Your task to perform on an android device: turn off sleep mode Image 0: 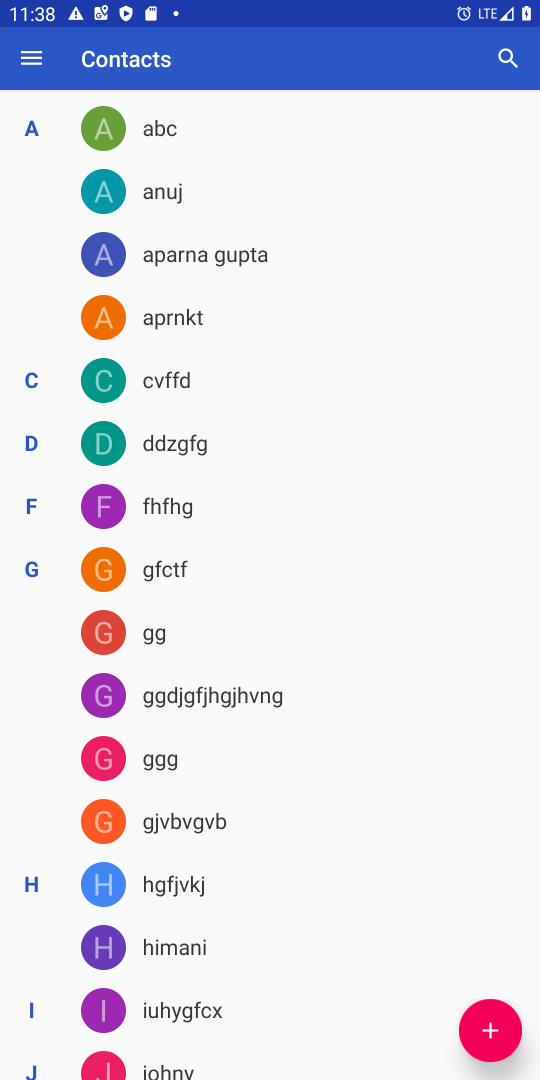
Step 0: press home button
Your task to perform on an android device: turn off sleep mode Image 1: 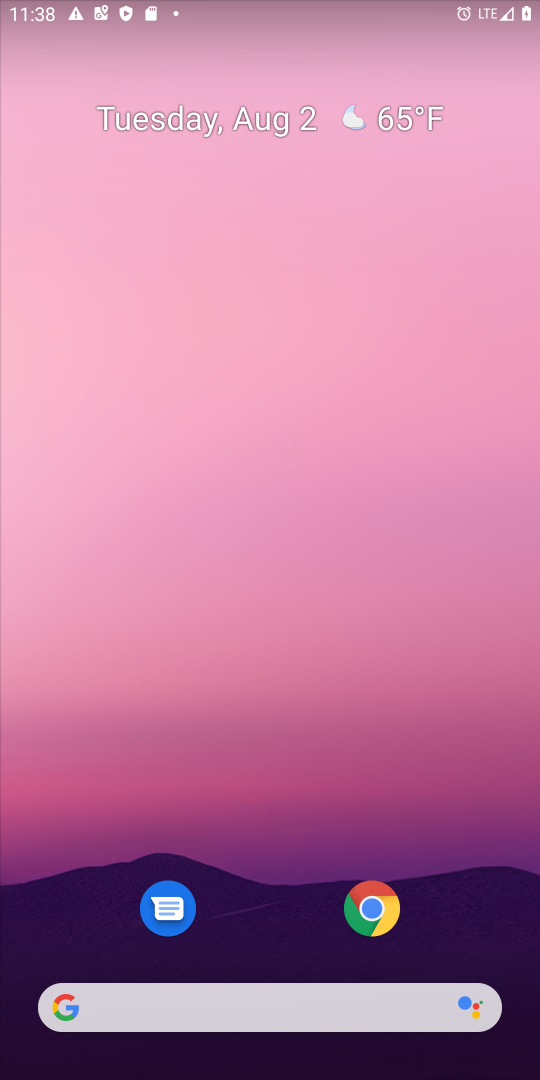
Step 1: drag from (306, 726) to (401, 110)
Your task to perform on an android device: turn off sleep mode Image 2: 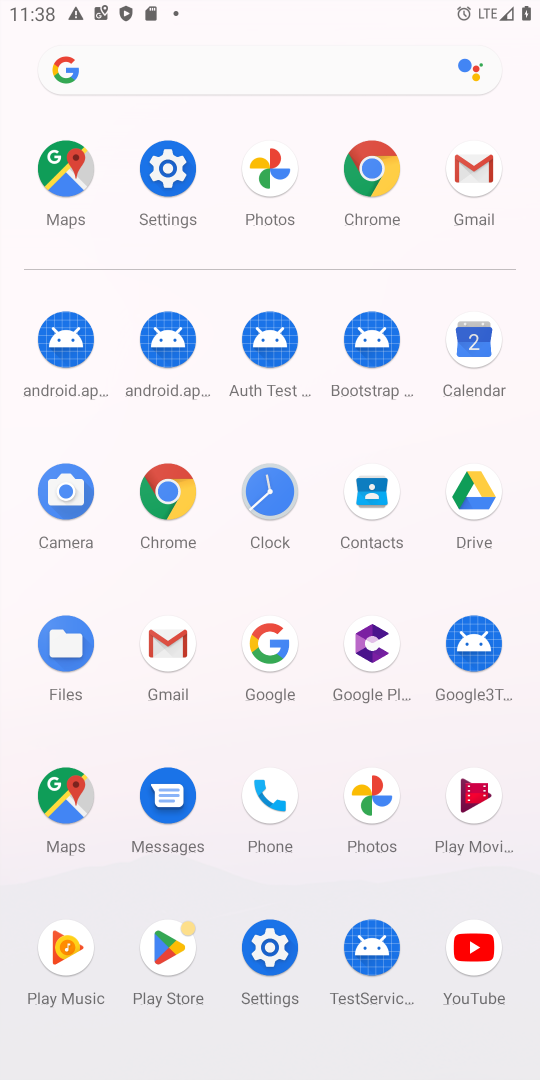
Step 2: click (276, 973)
Your task to perform on an android device: turn off sleep mode Image 3: 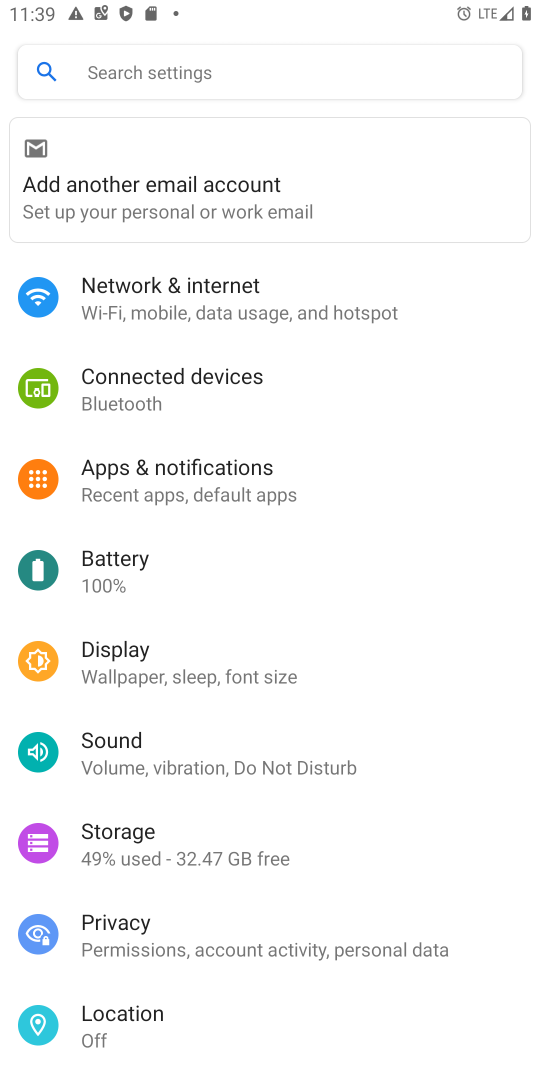
Step 3: task complete